Your task to perform on an android device: turn on improve location accuracy Image 0: 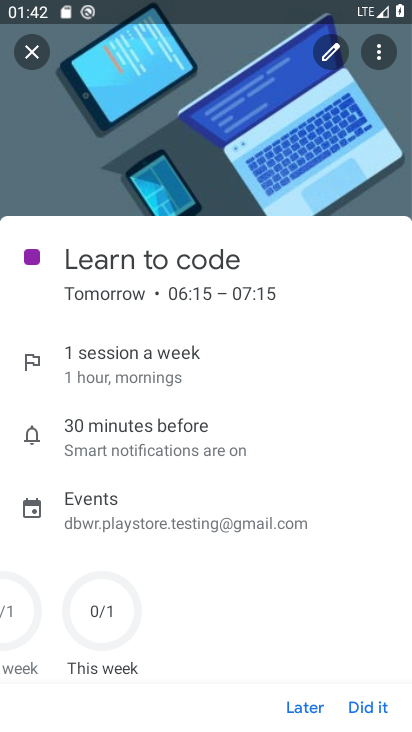
Step 0: press home button
Your task to perform on an android device: turn on improve location accuracy Image 1: 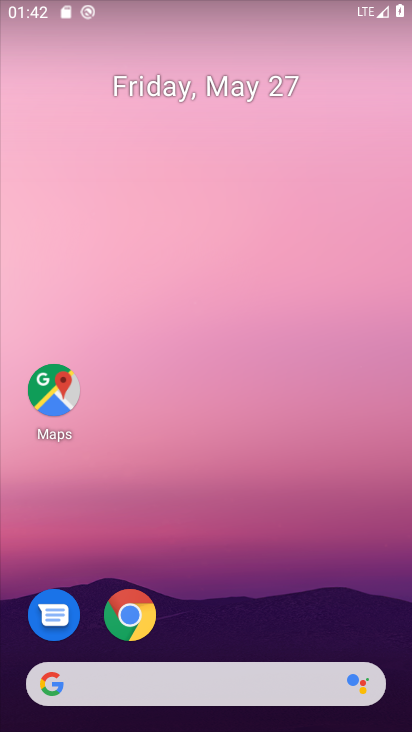
Step 1: drag from (361, 631) to (349, 249)
Your task to perform on an android device: turn on improve location accuracy Image 2: 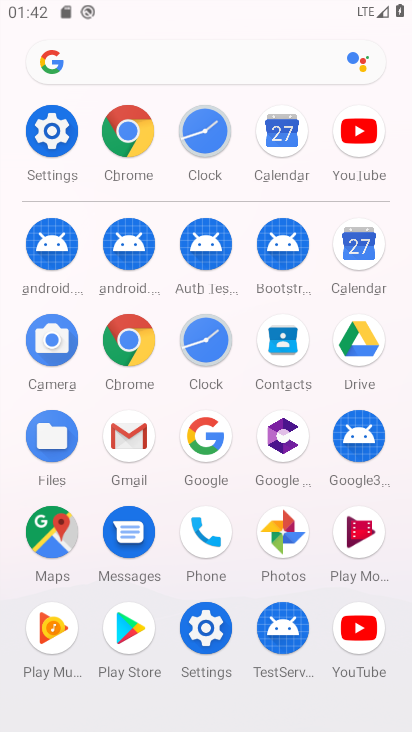
Step 2: click (215, 648)
Your task to perform on an android device: turn on improve location accuracy Image 3: 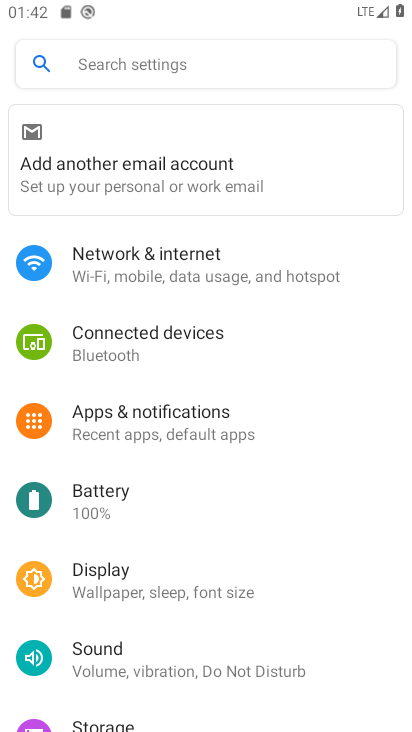
Step 3: drag from (343, 579) to (332, 507)
Your task to perform on an android device: turn on improve location accuracy Image 4: 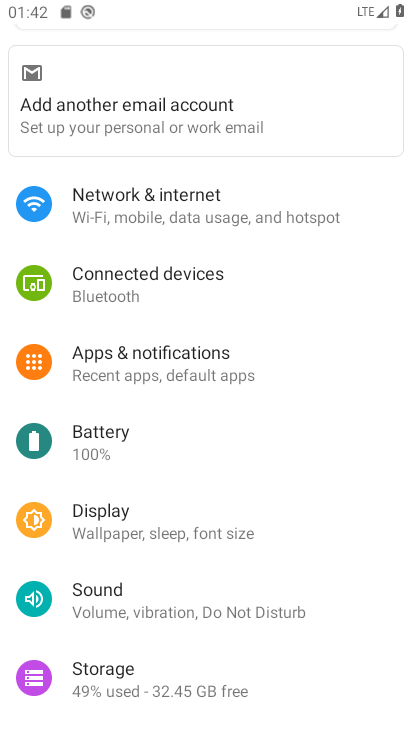
Step 4: drag from (340, 603) to (341, 528)
Your task to perform on an android device: turn on improve location accuracy Image 5: 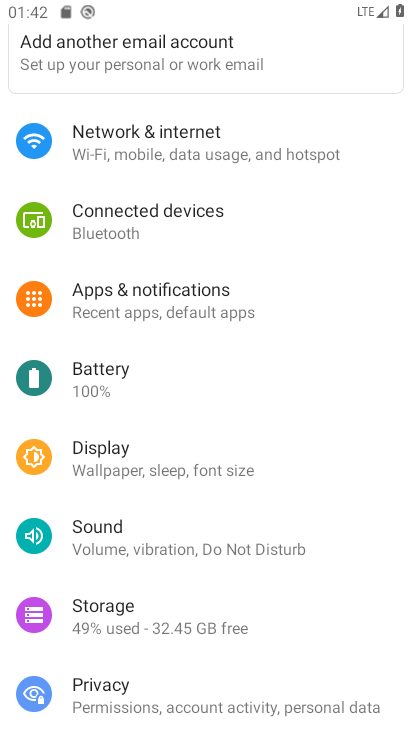
Step 5: drag from (354, 609) to (357, 525)
Your task to perform on an android device: turn on improve location accuracy Image 6: 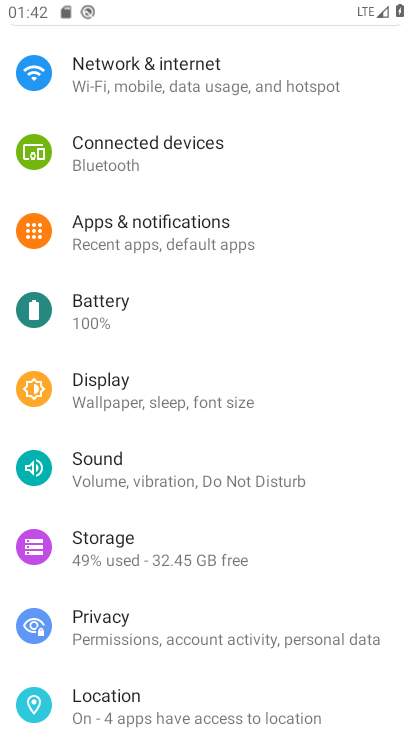
Step 6: drag from (361, 603) to (361, 524)
Your task to perform on an android device: turn on improve location accuracy Image 7: 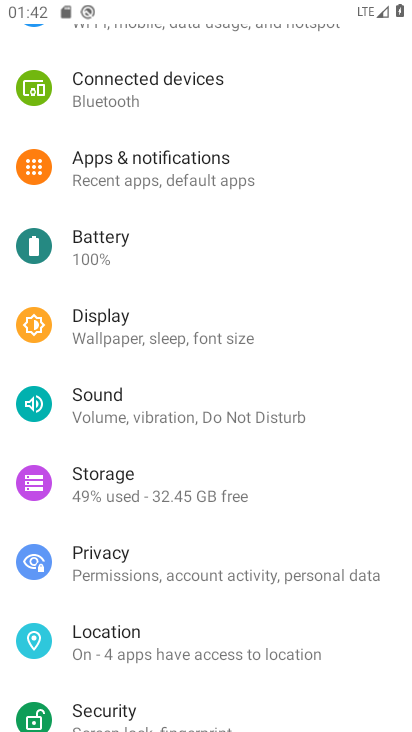
Step 7: drag from (356, 620) to (356, 538)
Your task to perform on an android device: turn on improve location accuracy Image 8: 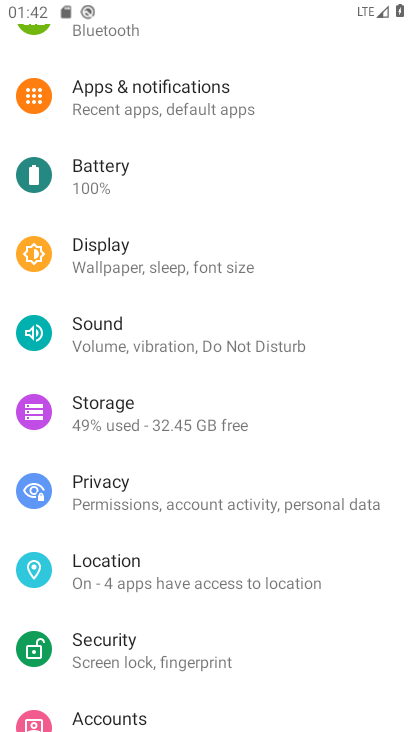
Step 8: drag from (352, 627) to (352, 539)
Your task to perform on an android device: turn on improve location accuracy Image 9: 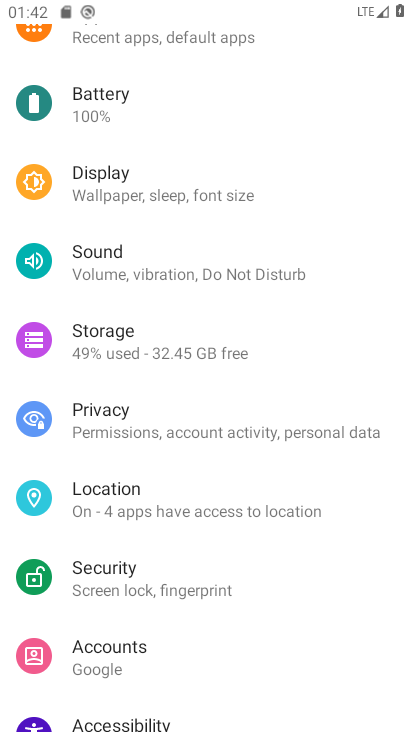
Step 9: drag from (357, 613) to (358, 534)
Your task to perform on an android device: turn on improve location accuracy Image 10: 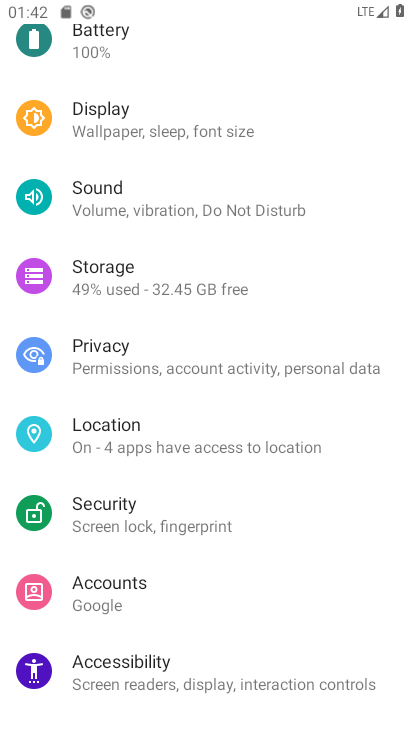
Step 10: drag from (368, 609) to (381, 529)
Your task to perform on an android device: turn on improve location accuracy Image 11: 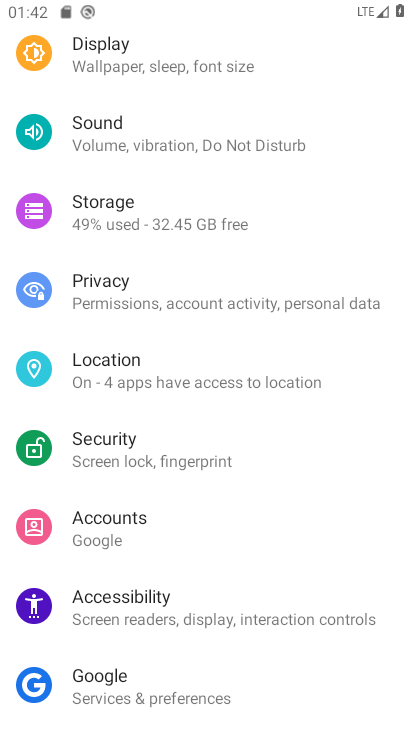
Step 11: drag from (384, 633) to (380, 538)
Your task to perform on an android device: turn on improve location accuracy Image 12: 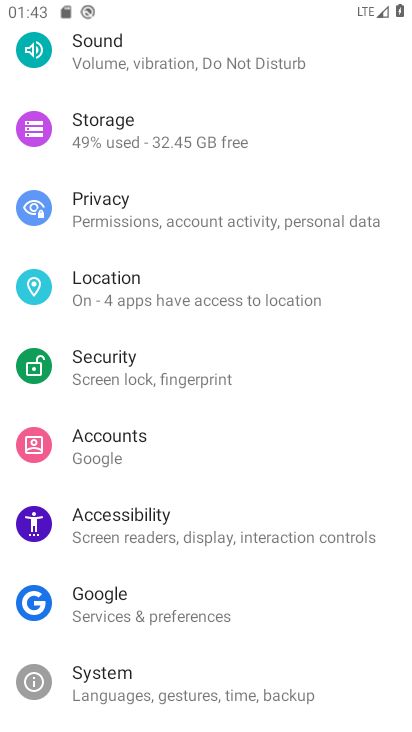
Step 12: drag from (363, 648) to (369, 581)
Your task to perform on an android device: turn on improve location accuracy Image 13: 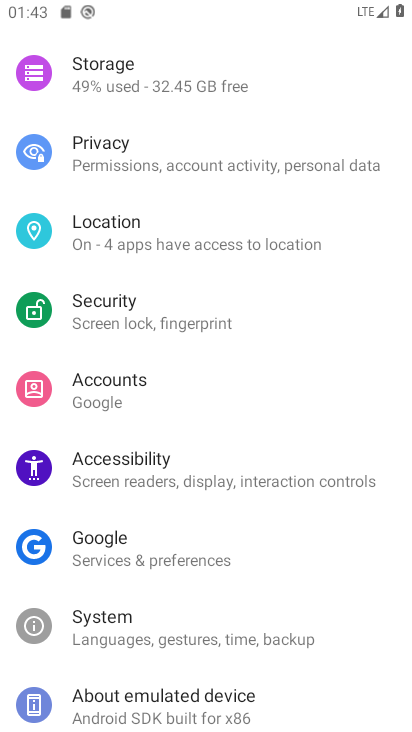
Step 13: drag from (371, 655) to (358, 579)
Your task to perform on an android device: turn on improve location accuracy Image 14: 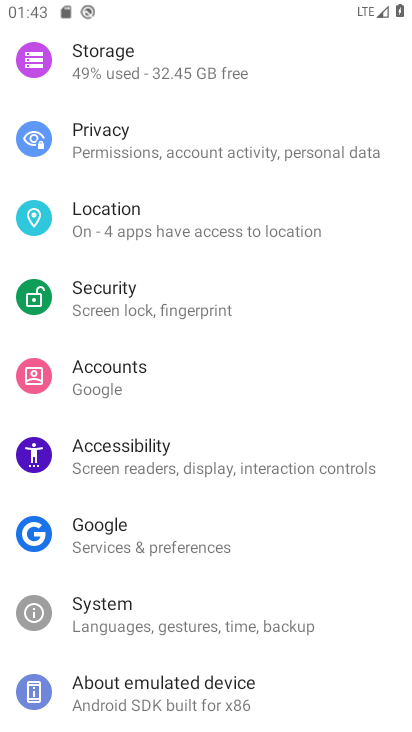
Step 14: drag from (351, 672) to (335, 536)
Your task to perform on an android device: turn on improve location accuracy Image 15: 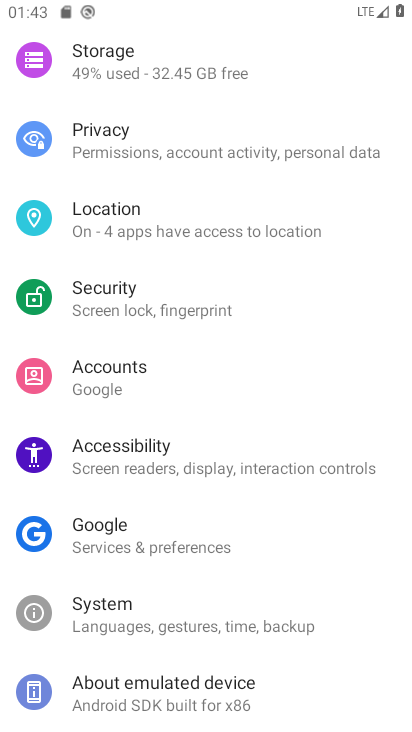
Step 15: drag from (334, 488) to (338, 572)
Your task to perform on an android device: turn on improve location accuracy Image 16: 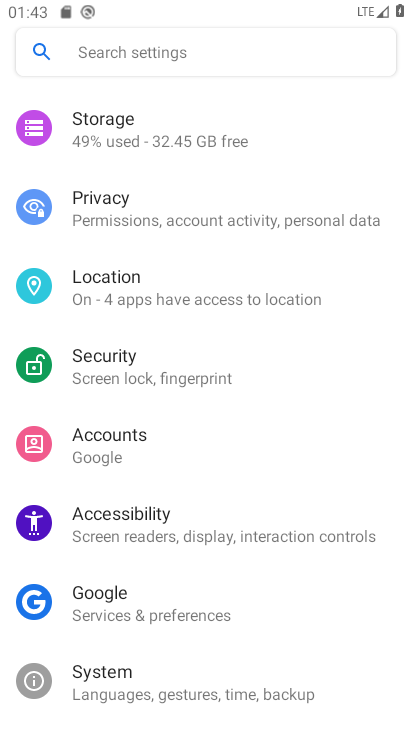
Step 16: drag from (341, 454) to (344, 542)
Your task to perform on an android device: turn on improve location accuracy Image 17: 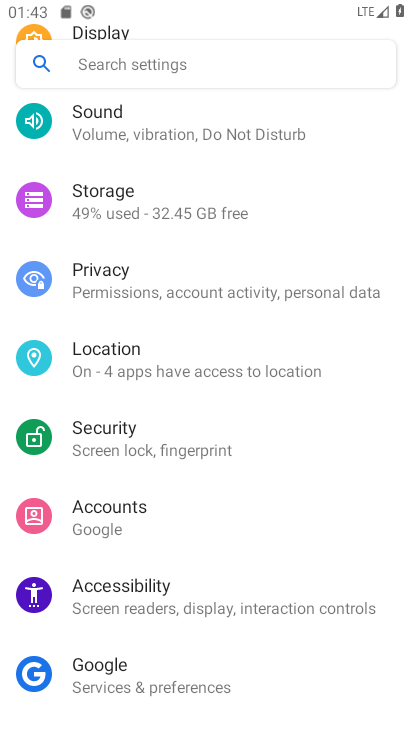
Step 17: drag from (330, 481) to (330, 563)
Your task to perform on an android device: turn on improve location accuracy Image 18: 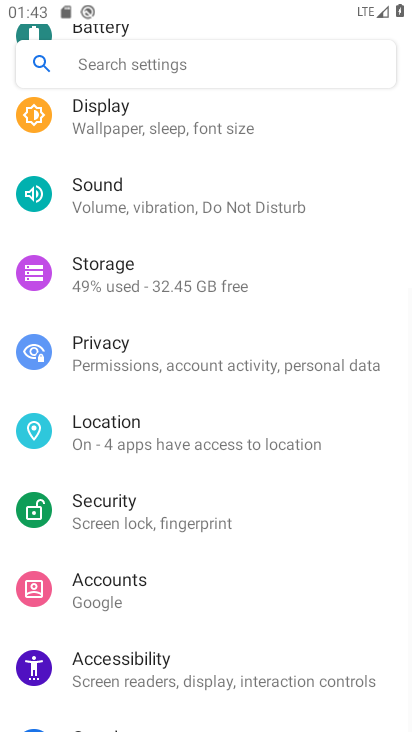
Step 18: drag from (321, 503) to (322, 601)
Your task to perform on an android device: turn on improve location accuracy Image 19: 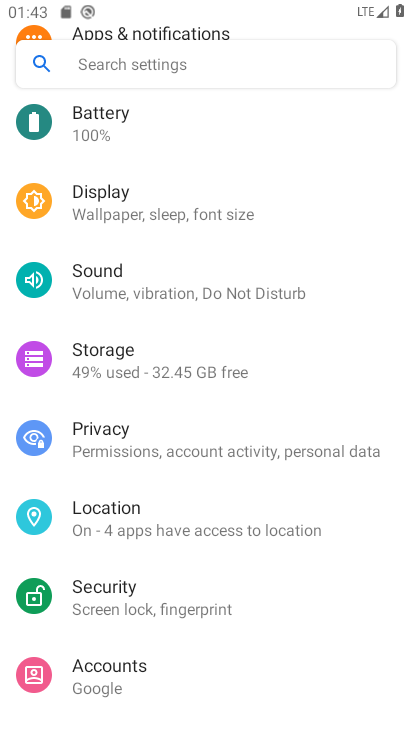
Step 19: click (289, 536)
Your task to perform on an android device: turn on improve location accuracy Image 20: 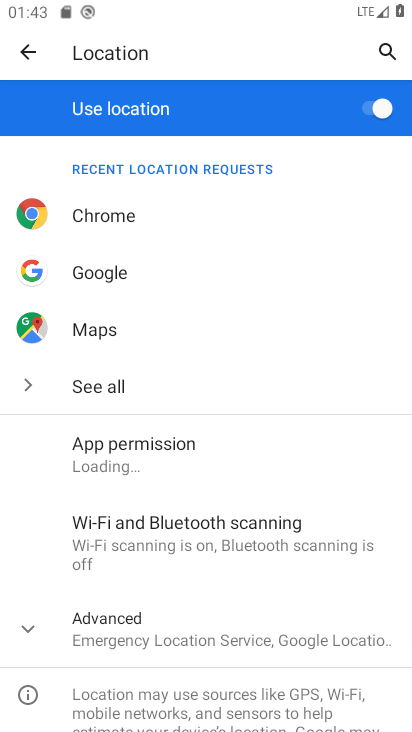
Step 20: drag from (293, 582) to (292, 493)
Your task to perform on an android device: turn on improve location accuracy Image 21: 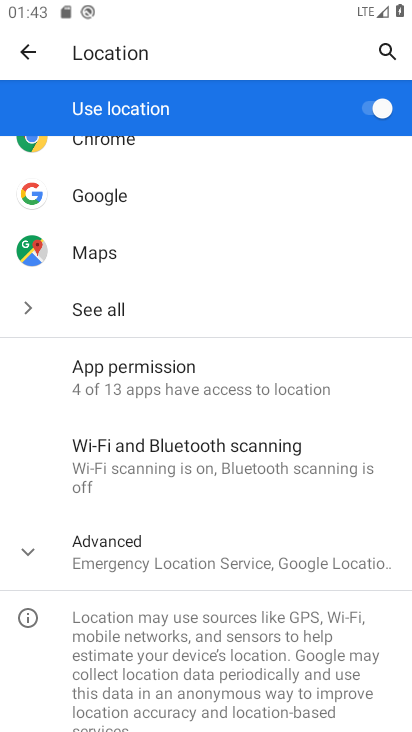
Step 21: click (292, 552)
Your task to perform on an android device: turn on improve location accuracy Image 22: 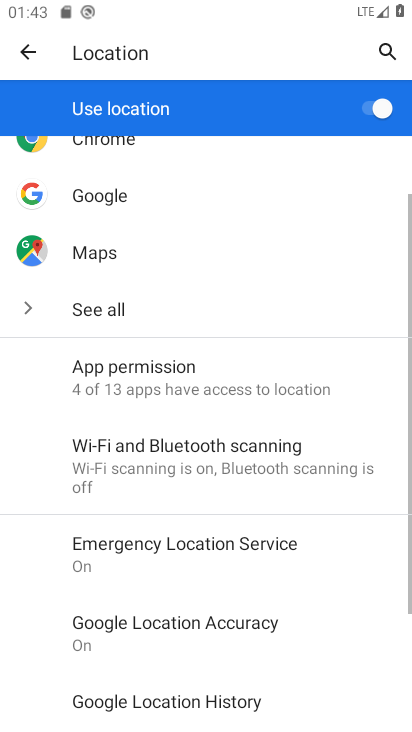
Step 22: drag from (295, 581) to (297, 506)
Your task to perform on an android device: turn on improve location accuracy Image 23: 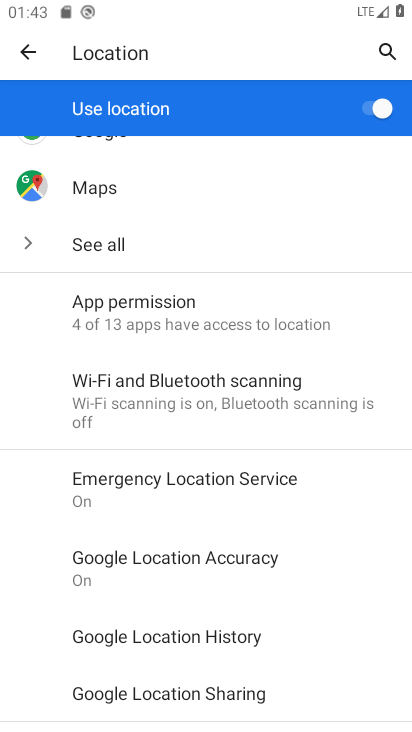
Step 23: drag from (314, 570) to (334, 455)
Your task to perform on an android device: turn on improve location accuracy Image 24: 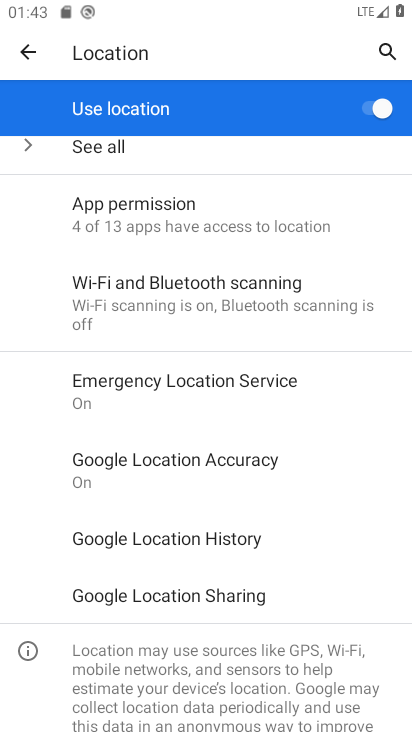
Step 24: drag from (323, 582) to (322, 465)
Your task to perform on an android device: turn on improve location accuracy Image 25: 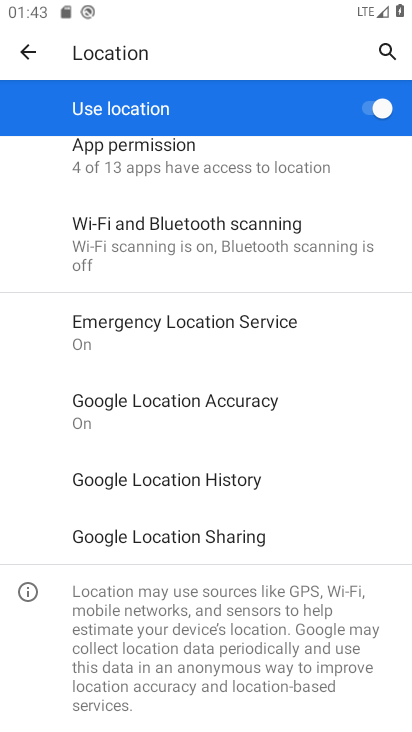
Step 25: click (202, 414)
Your task to perform on an android device: turn on improve location accuracy Image 26: 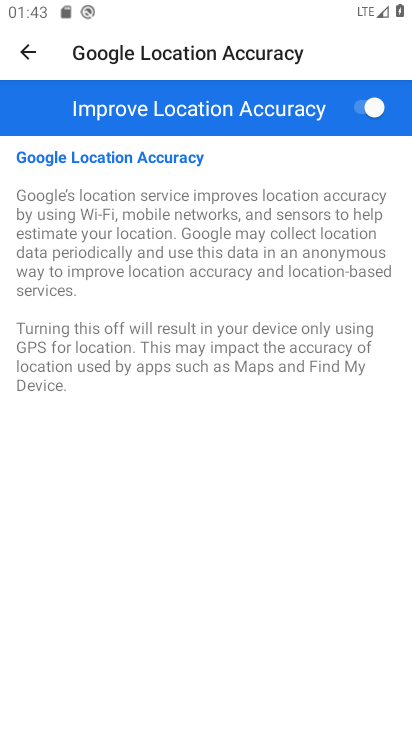
Step 26: task complete